Your task to perform on an android device: turn off notifications settings in the gmail app Image 0: 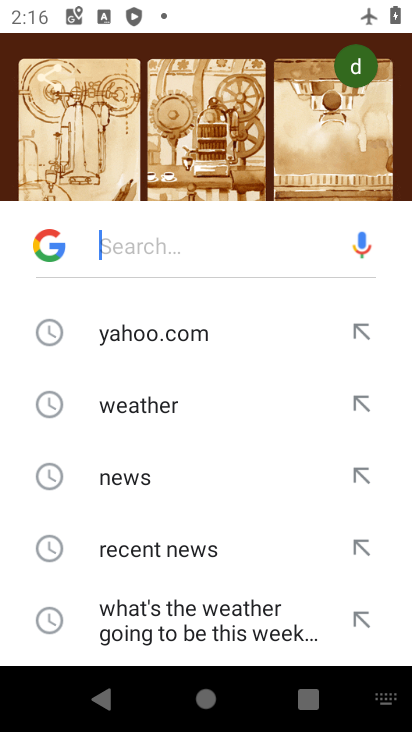
Step 0: press home button
Your task to perform on an android device: turn off notifications settings in the gmail app Image 1: 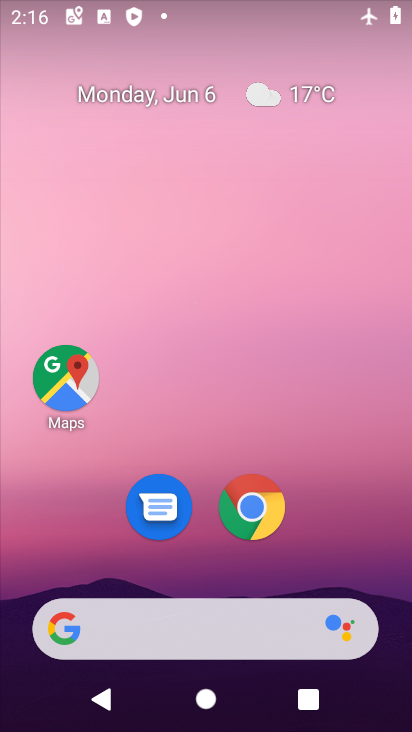
Step 1: drag from (311, 507) to (297, 0)
Your task to perform on an android device: turn off notifications settings in the gmail app Image 2: 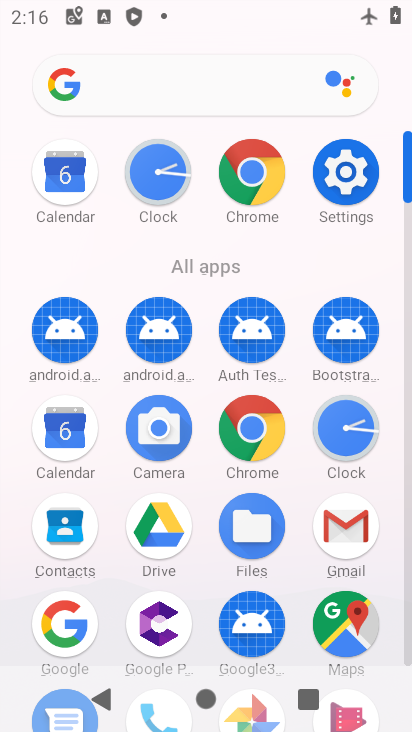
Step 2: click (343, 526)
Your task to perform on an android device: turn off notifications settings in the gmail app Image 3: 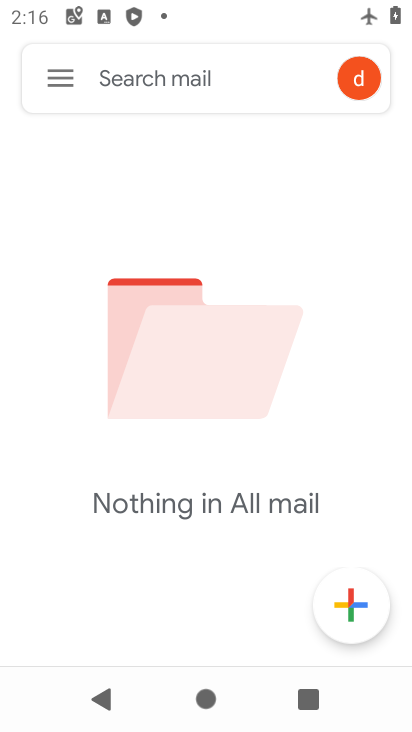
Step 3: click (61, 79)
Your task to perform on an android device: turn off notifications settings in the gmail app Image 4: 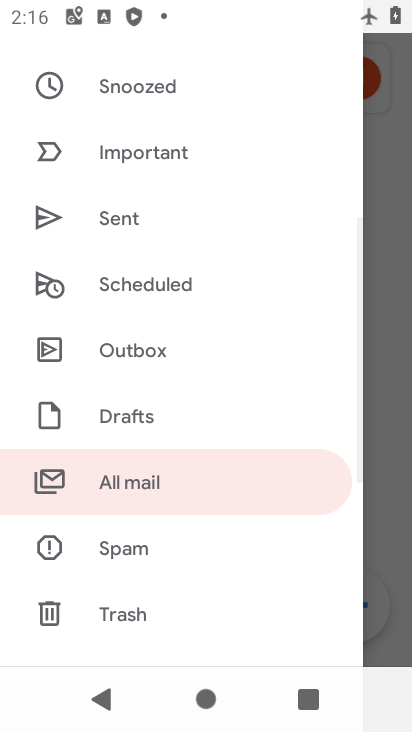
Step 4: drag from (204, 493) to (301, 0)
Your task to perform on an android device: turn off notifications settings in the gmail app Image 5: 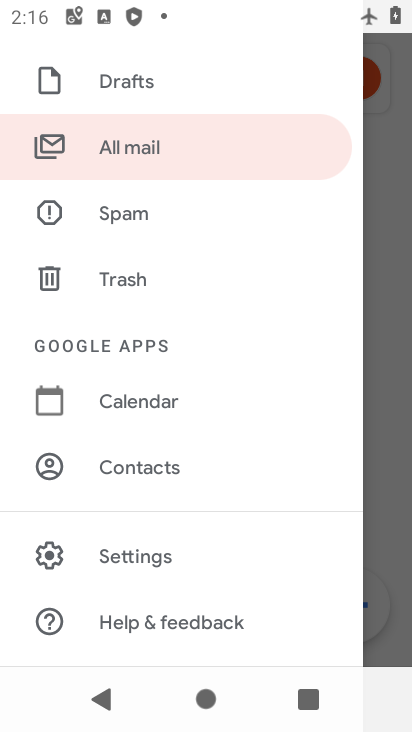
Step 5: click (185, 575)
Your task to perform on an android device: turn off notifications settings in the gmail app Image 6: 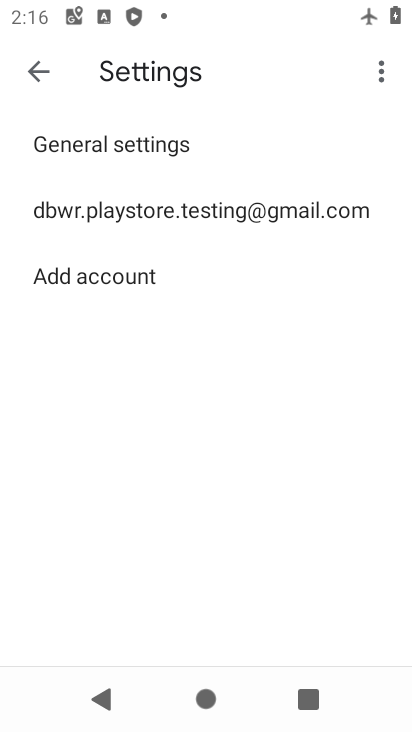
Step 6: click (205, 200)
Your task to perform on an android device: turn off notifications settings in the gmail app Image 7: 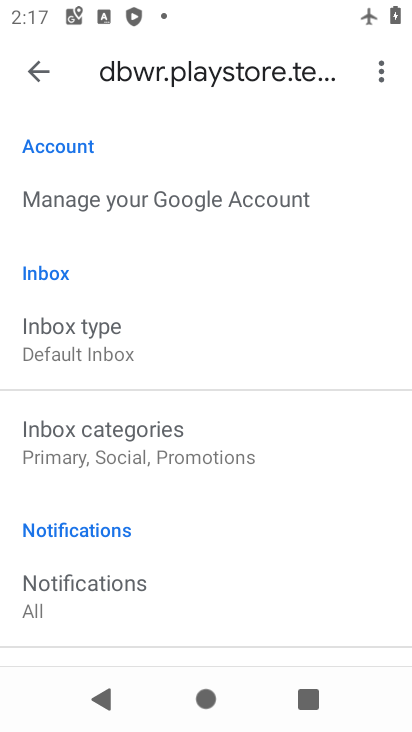
Step 7: drag from (222, 491) to (272, 60)
Your task to perform on an android device: turn off notifications settings in the gmail app Image 8: 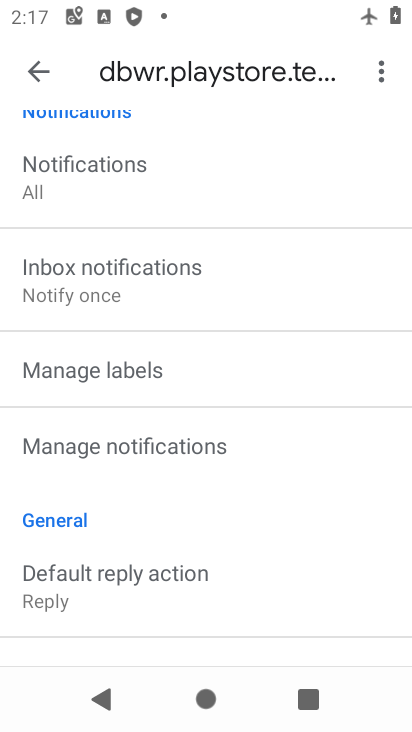
Step 8: click (236, 436)
Your task to perform on an android device: turn off notifications settings in the gmail app Image 9: 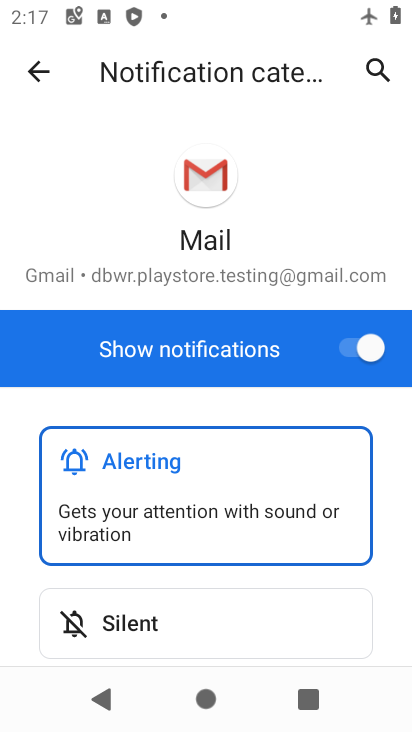
Step 9: click (361, 348)
Your task to perform on an android device: turn off notifications settings in the gmail app Image 10: 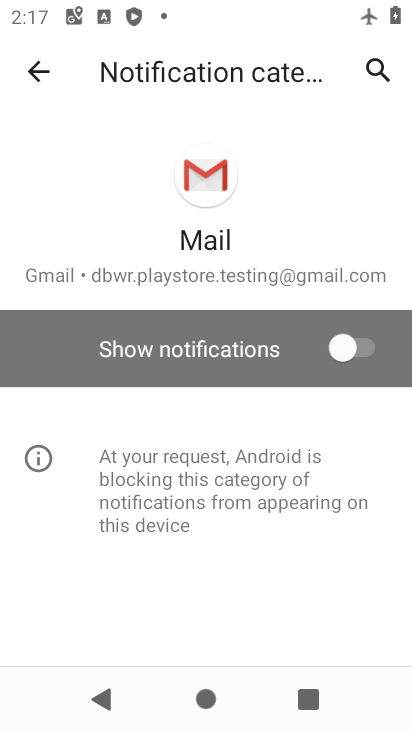
Step 10: task complete